Your task to perform on an android device: turn off smart reply in the gmail app Image 0: 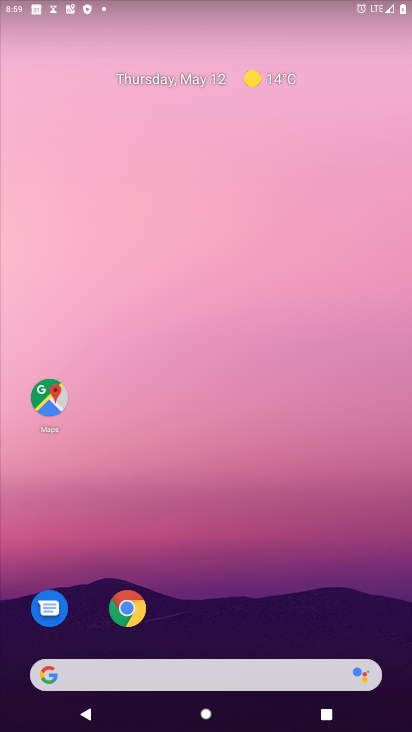
Step 0: drag from (194, 655) to (243, 283)
Your task to perform on an android device: turn off smart reply in the gmail app Image 1: 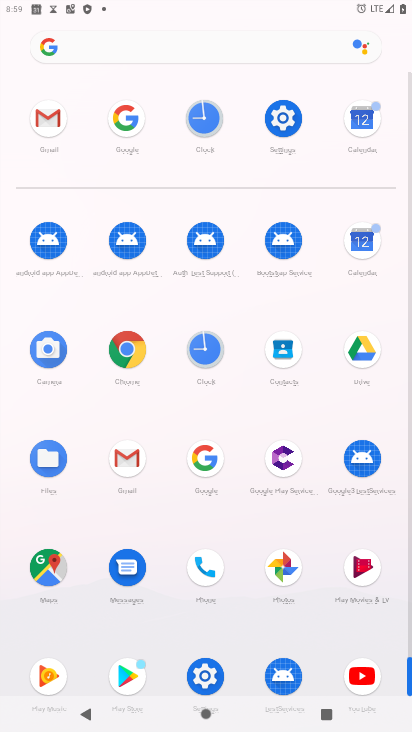
Step 1: click (50, 111)
Your task to perform on an android device: turn off smart reply in the gmail app Image 2: 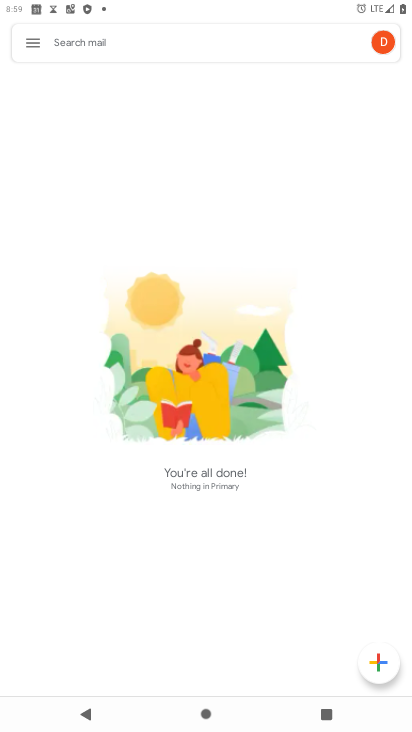
Step 2: click (43, 48)
Your task to perform on an android device: turn off smart reply in the gmail app Image 3: 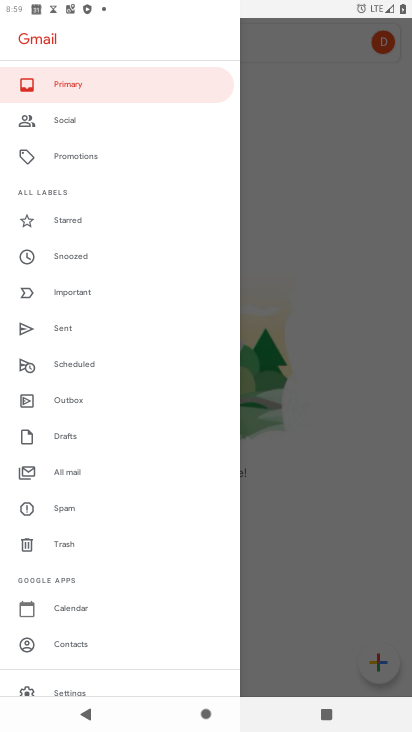
Step 3: drag from (122, 663) to (110, 378)
Your task to perform on an android device: turn off smart reply in the gmail app Image 4: 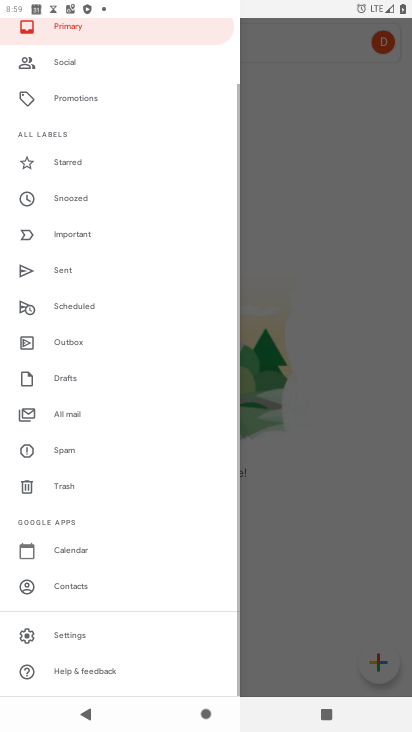
Step 4: click (72, 633)
Your task to perform on an android device: turn off smart reply in the gmail app Image 5: 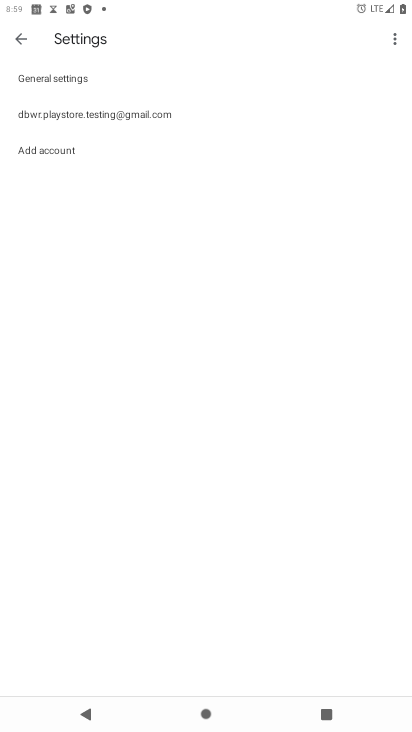
Step 5: click (87, 111)
Your task to perform on an android device: turn off smart reply in the gmail app Image 6: 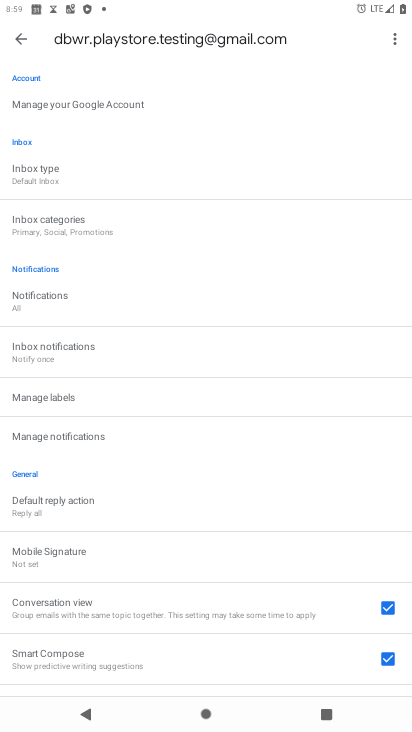
Step 6: drag from (116, 519) to (116, 303)
Your task to perform on an android device: turn off smart reply in the gmail app Image 7: 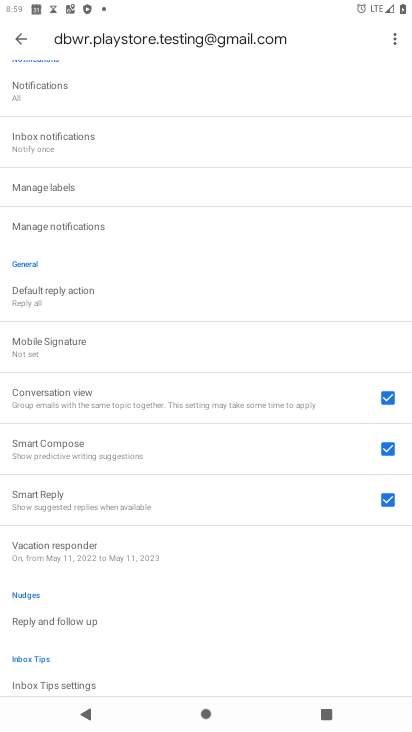
Step 7: click (389, 503)
Your task to perform on an android device: turn off smart reply in the gmail app Image 8: 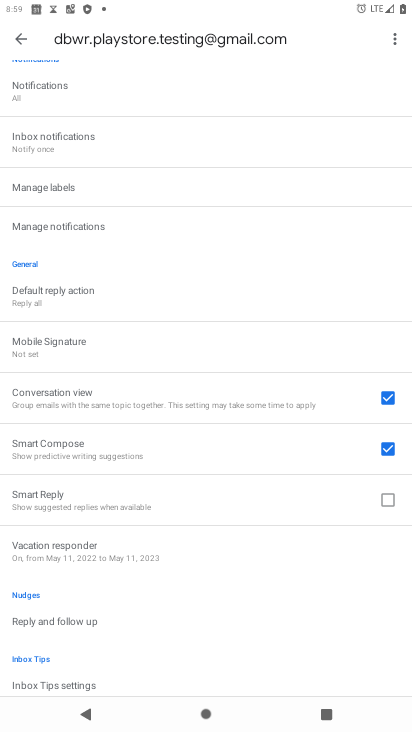
Step 8: task complete